Your task to perform on an android device: open app "Google Calendar" Image 0: 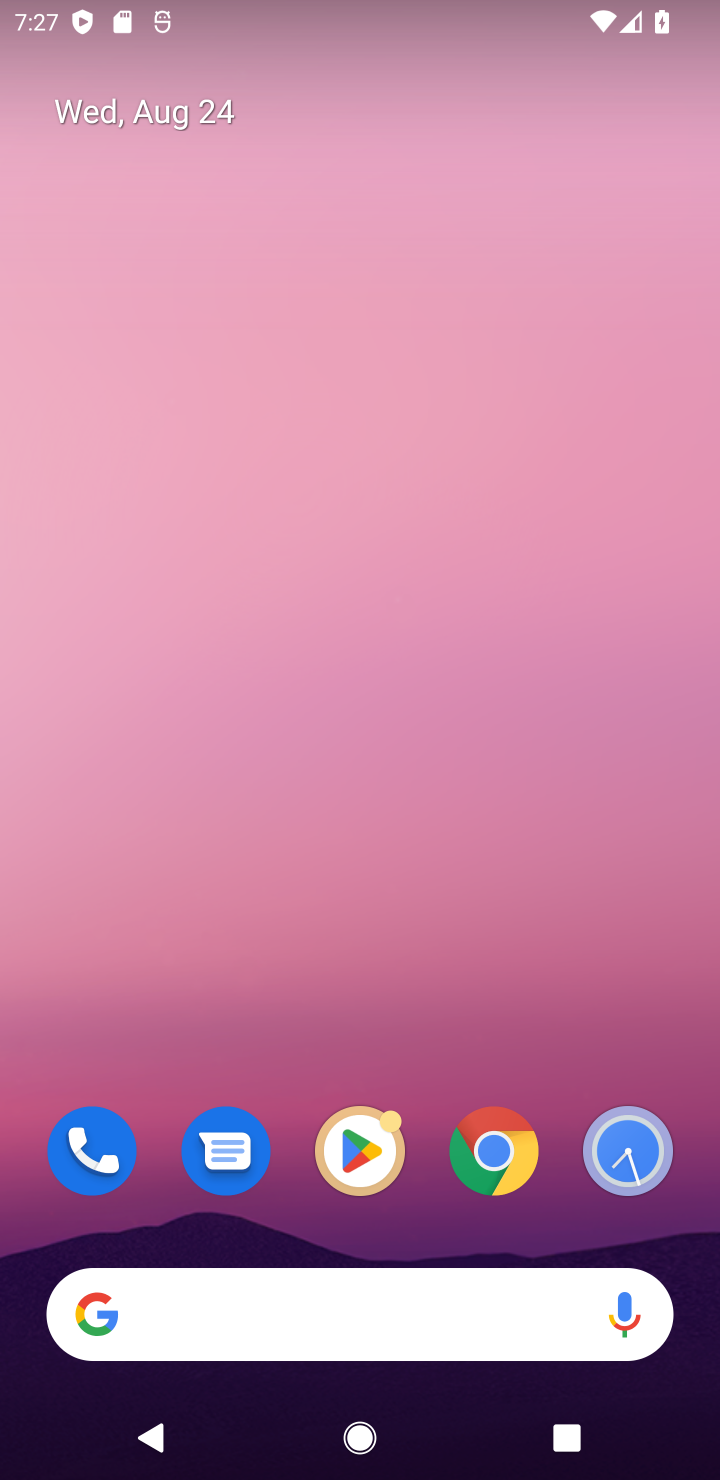
Step 0: drag from (580, 1222) to (501, 18)
Your task to perform on an android device: open app "Google Calendar" Image 1: 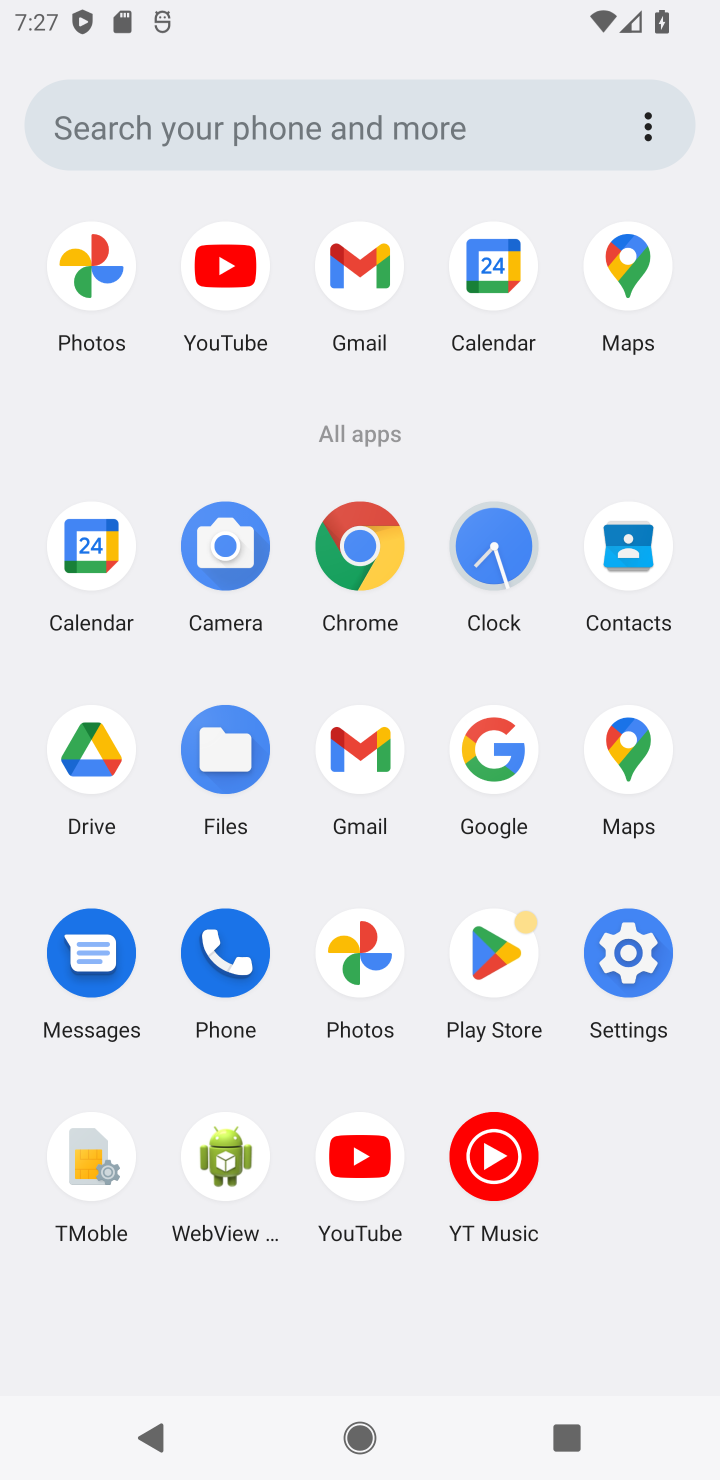
Step 1: click (90, 546)
Your task to perform on an android device: open app "Google Calendar" Image 2: 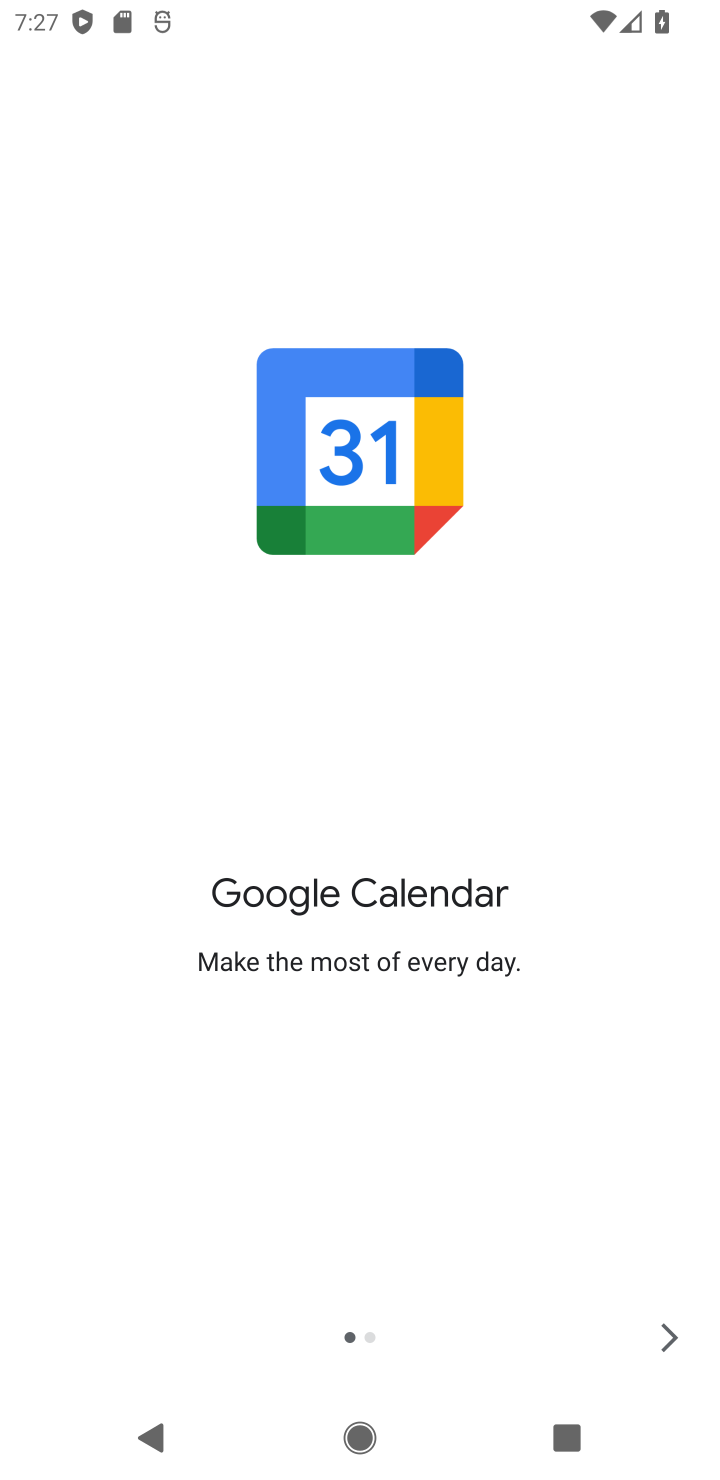
Step 2: click (670, 1334)
Your task to perform on an android device: open app "Google Calendar" Image 3: 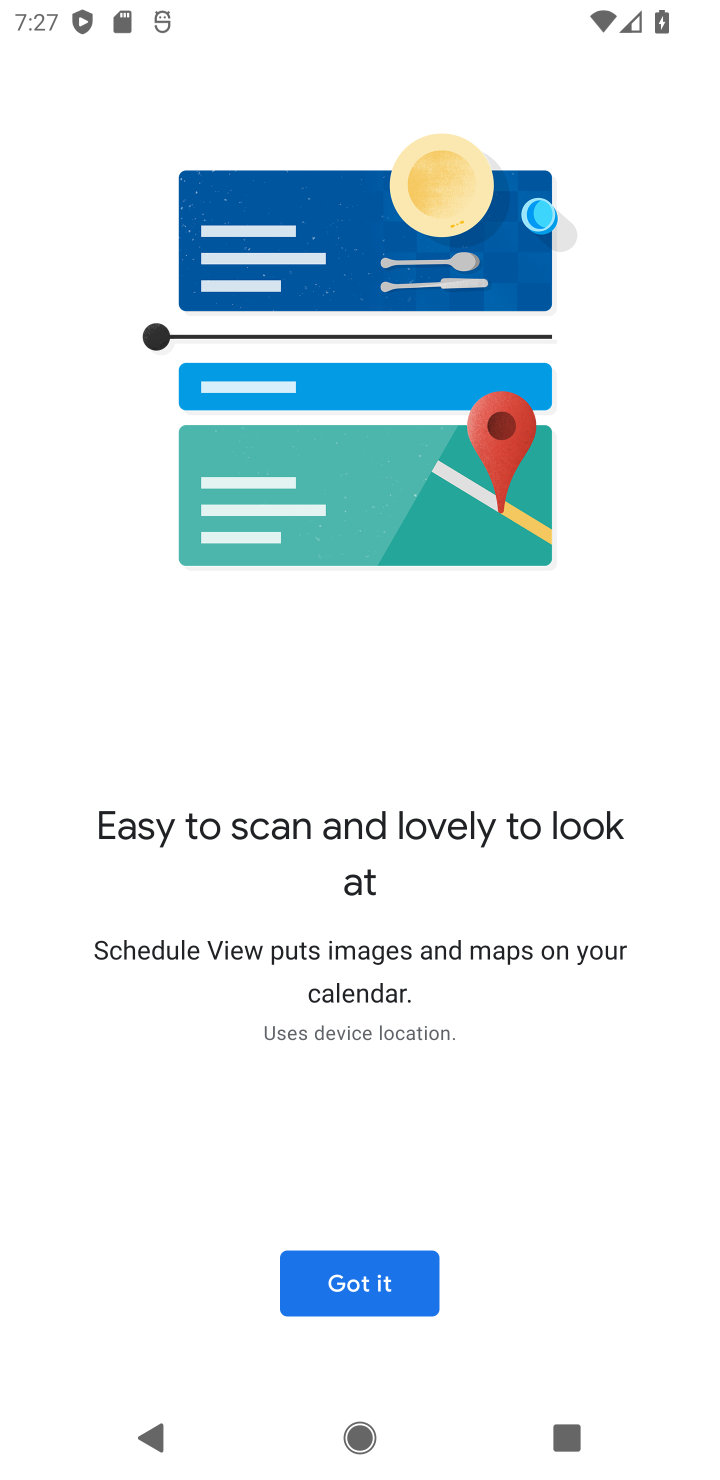
Step 3: click (365, 1293)
Your task to perform on an android device: open app "Google Calendar" Image 4: 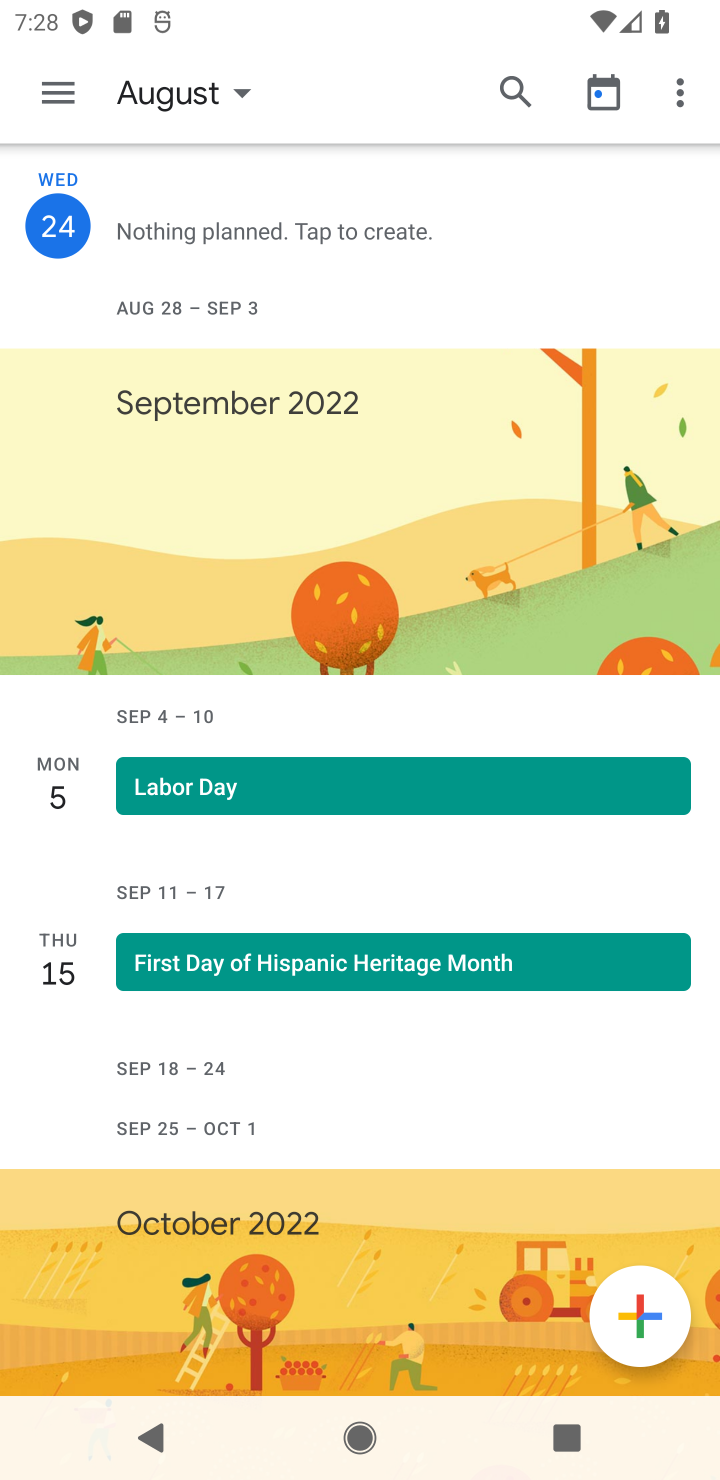
Step 4: task complete